Your task to perform on an android device: set the stopwatch Image 0: 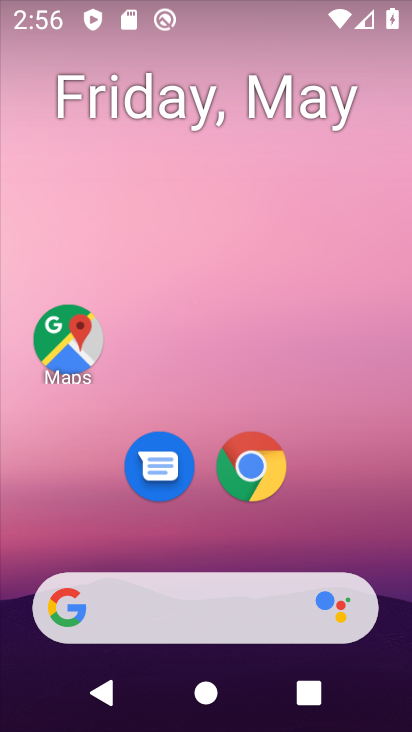
Step 0: drag from (192, 375) to (186, 17)
Your task to perform on an android device: set the stopwatch Image 1: 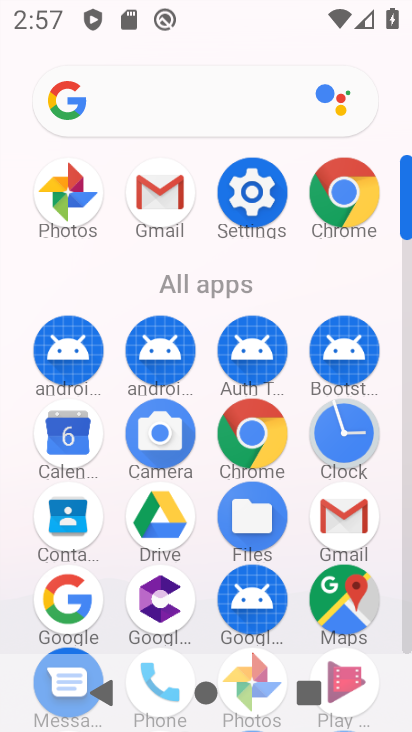
Step 1: click (348, 441)
Your task to perform on an android device: set the stopwatch Image 2: 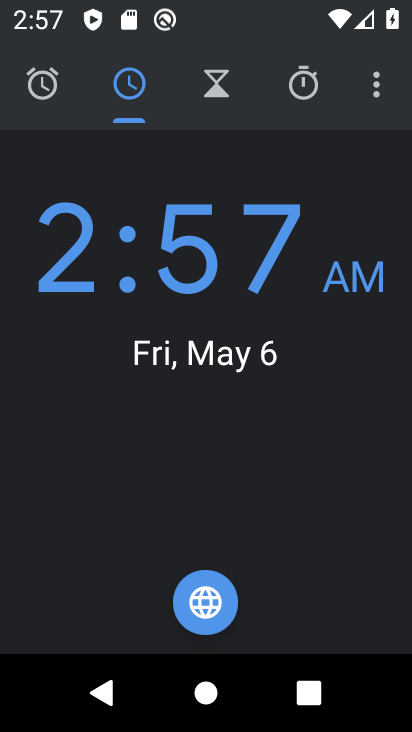
Step 2: click (300, 87)
Your task to perform on an android device: set the stopwatch Image 3: 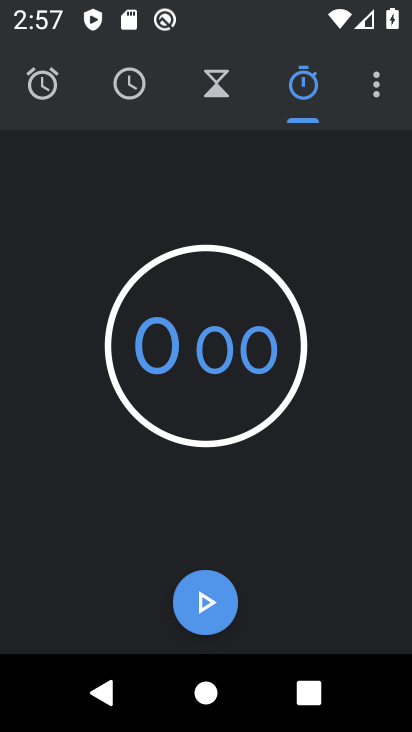
Step 3: click (199, 606)
Your task to perform on an android device: set the stopwatch Image 4: 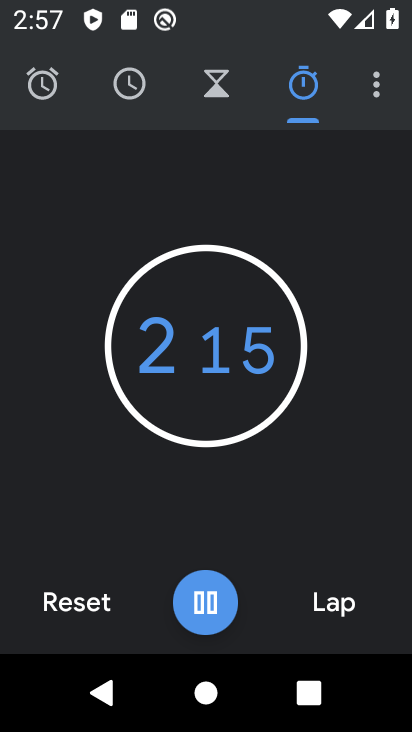
Step 4: task complete